Your task to perform on an android device: turn notification dots on Image 0: 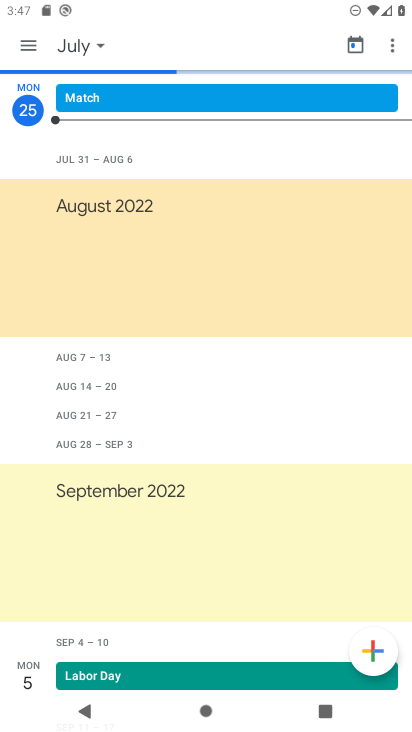
Step 0: click (222, 188)
Your task to perform on an android device: turn notification dots on Image 1: 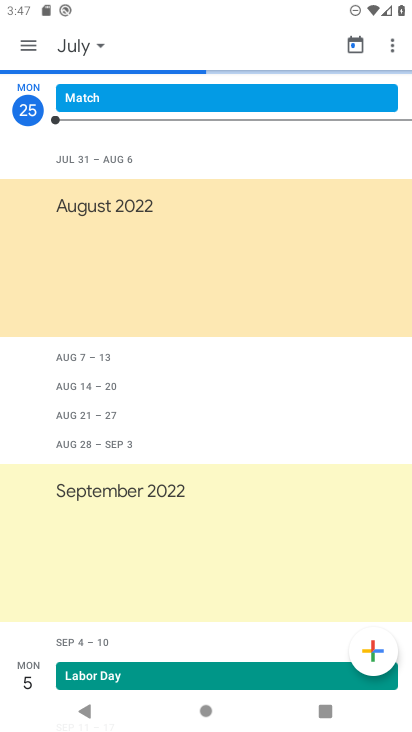
Step 1: press back button
Your task to perform on an android device: turn notification dots on Image 2: 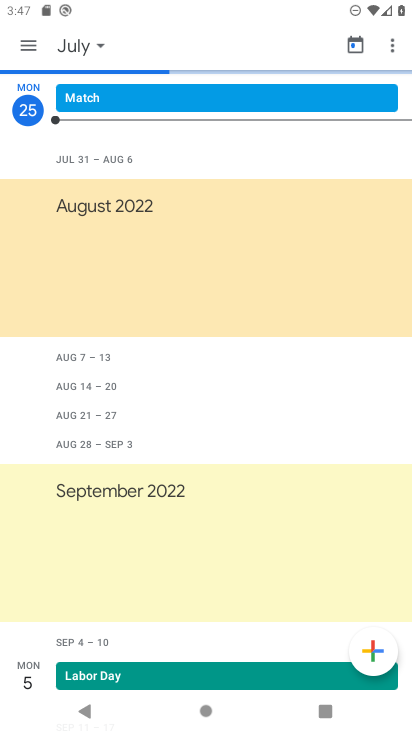
Step 2: press back button
Your task to perform on an android device: turn notification dots on Image 3: 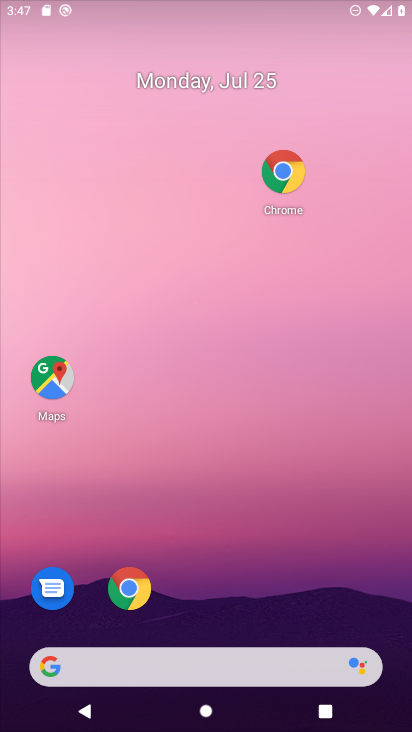
Step 3: drag from (242, 534) to (247, 146)
Your task to perform on an android device: turn notification dots on Image 4: 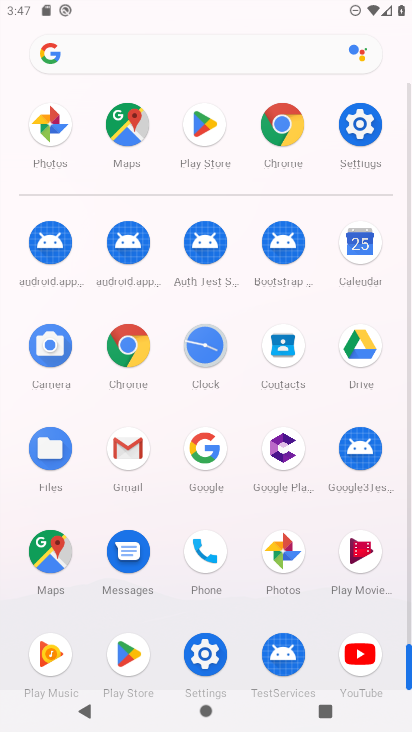
Step 4: click (348, 129)
Your task to perform on an android device: turn notification dots on Image 5: 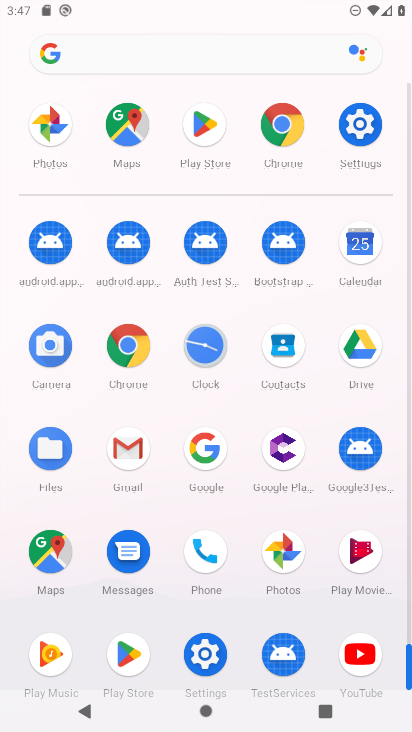
Step 5: click (347, 129)
Your task to perform on an android device: turn notification dots on Image 6: 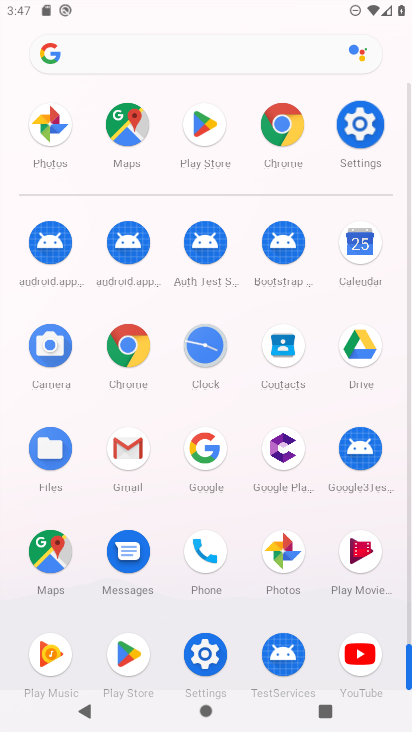
Step 6: click (346, 128)
Your task to perform on an android device: turn notification dots on Image 7: 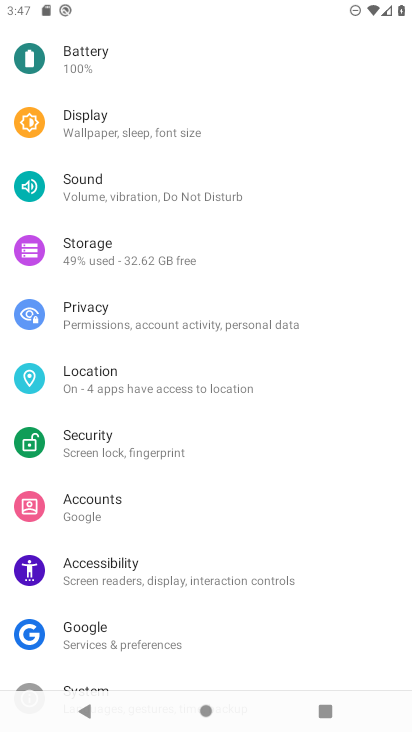
Step 7: drag from (123, 134) to (129, 597)
Your task to perform on an android device: turn notification dots on Image 8: 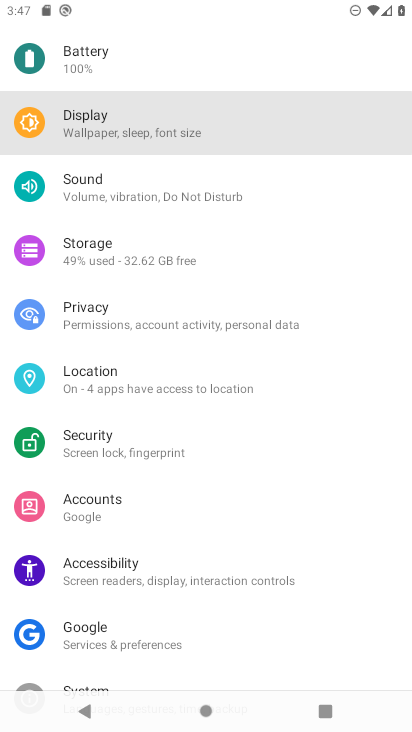
Step 8: drag from (129, 225) to (146, 547)
Your task to perform on an android device: turn notification dots on Image 9: 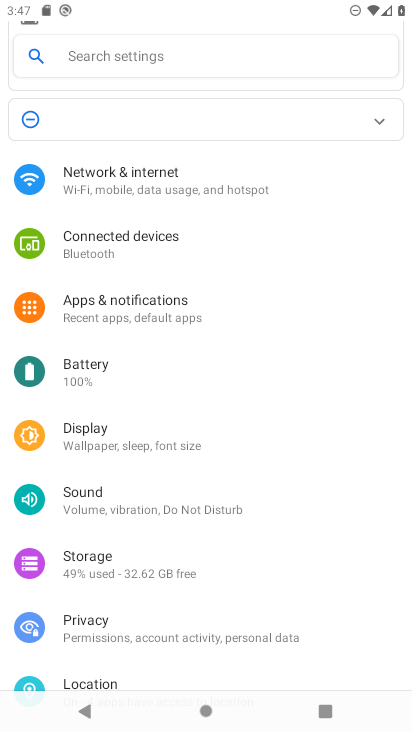
Step 9: click (141, 297)
Your task to perform on an android device: turn notification dots on Image 10: 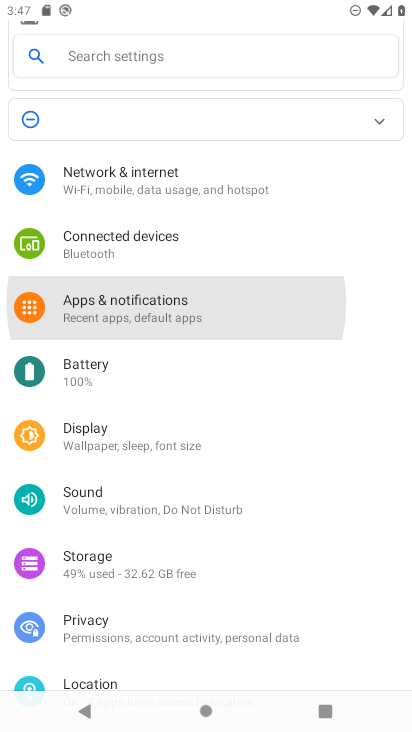
Step 10: click (146, 300)
Your task to perform on an android device: turn notification dots on Image 11: 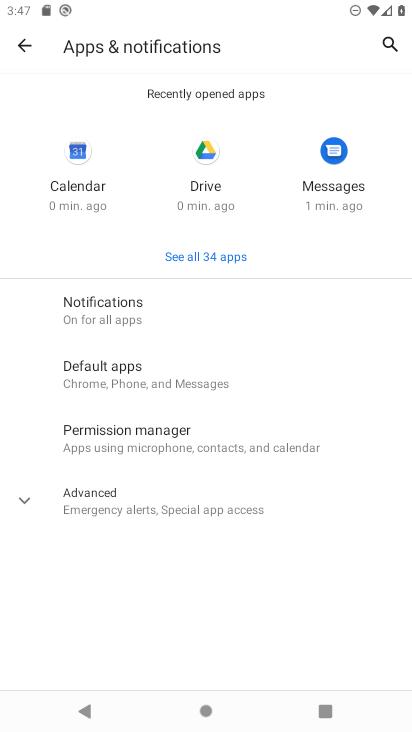
Step 11: click (121, 305)
Your task to perform on an android device: turn notification dots on Image 12: 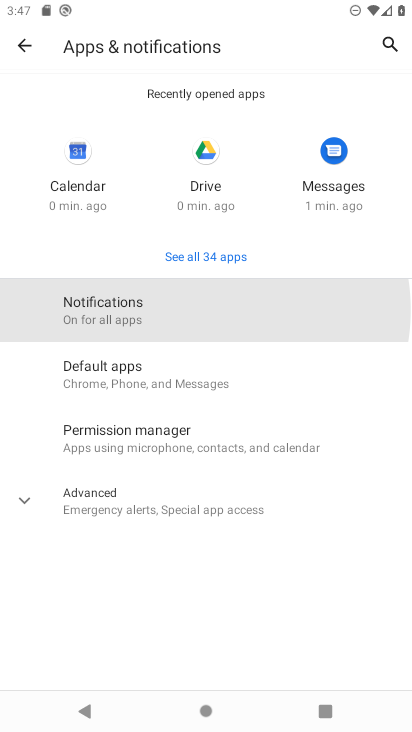
Step 12: click (120, 305)
Your task to perform on an android device: turn notification dots on Image 13: 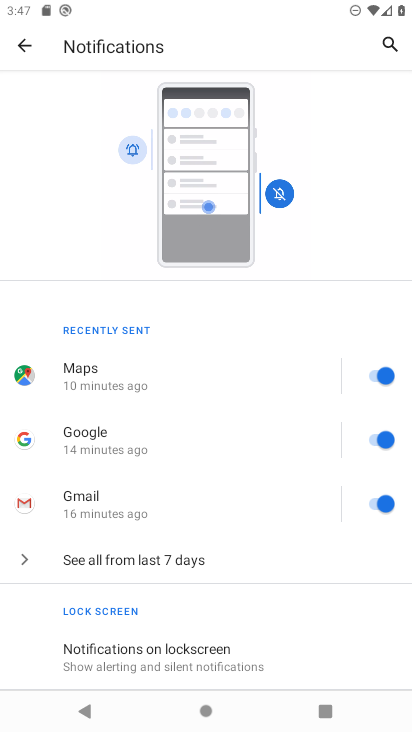
Step 13: click (192, 637)
Your task to perform on an android device: turn notification dots on Image 14: 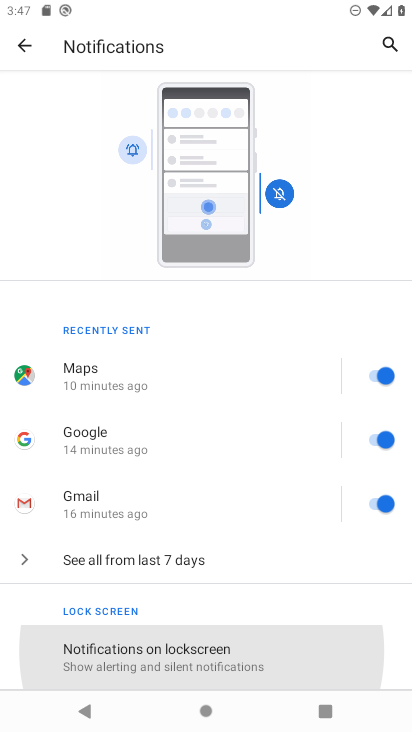
Step 14: click (191, 638)
Your task to perform on an android device: turn notification dots on Image 15: 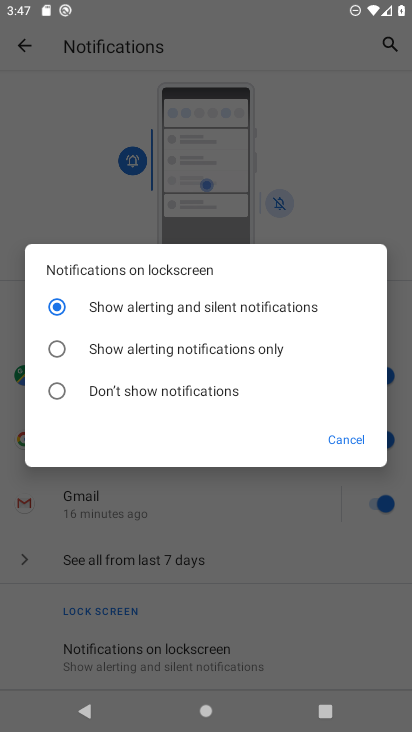
Step 15: click (53, 394)
Your task to perform on an android device: turn notification dots on Image 16: 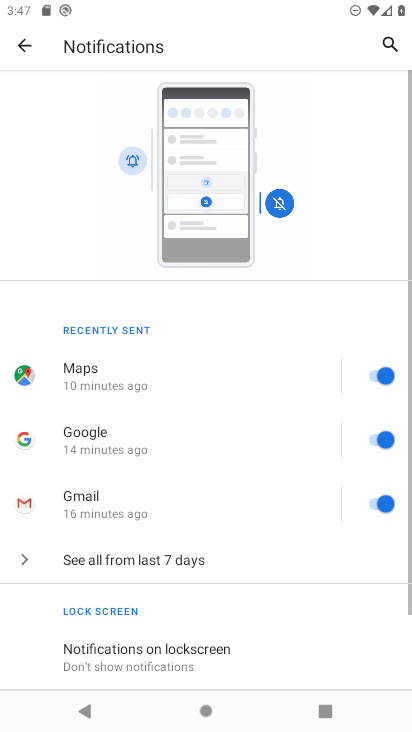
Step 16: drag from (196, 622) to (210, 234)
Your task to perform on an android device: turn notification dots on Image 17: 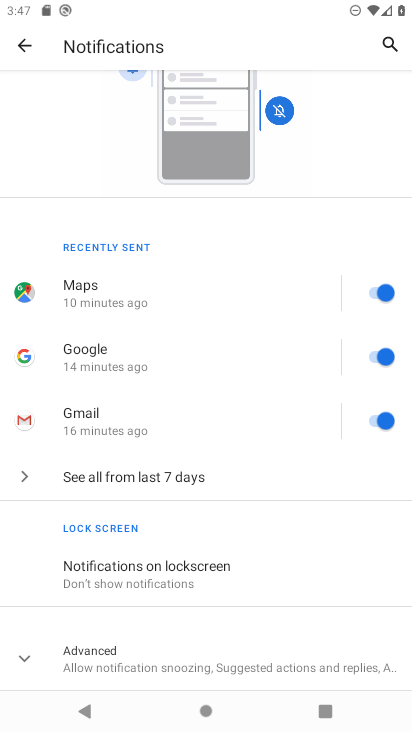
Step 17: click (99, 646)
Your task to perform on an android device: turn notification dots on Image 18: 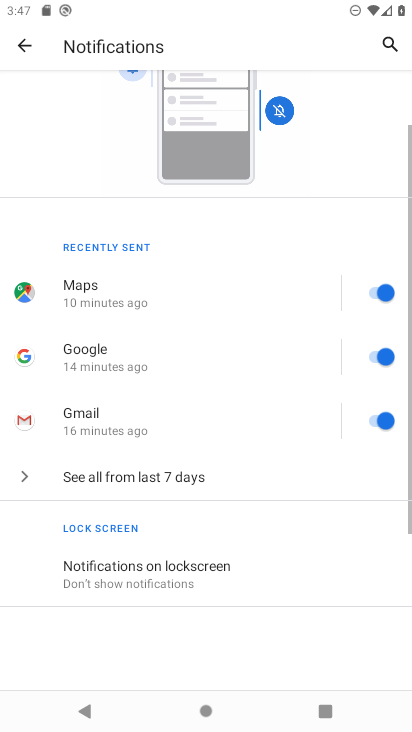
Step 18: click (95, 645)
Your task to perform on an android device: turn notification dots on Image 19: 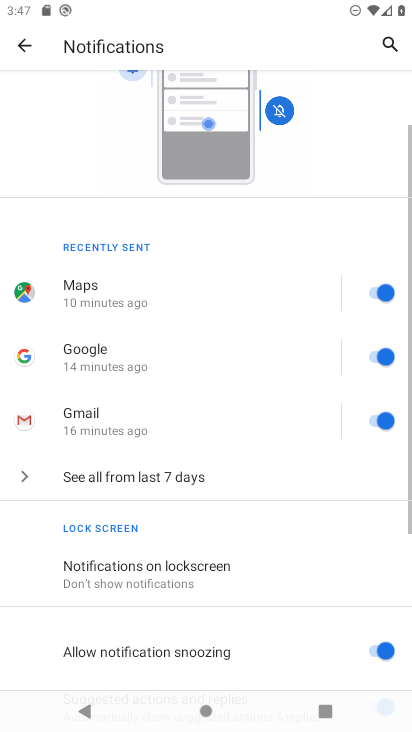
Step 19: task complete